Your task to perform on an android device: check android version Image 0: 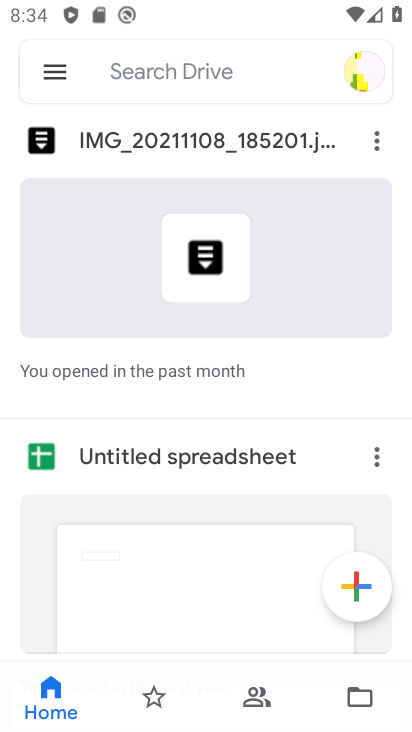
Step 0: press home button
Your task to perform on an android device: check android version Image 1: 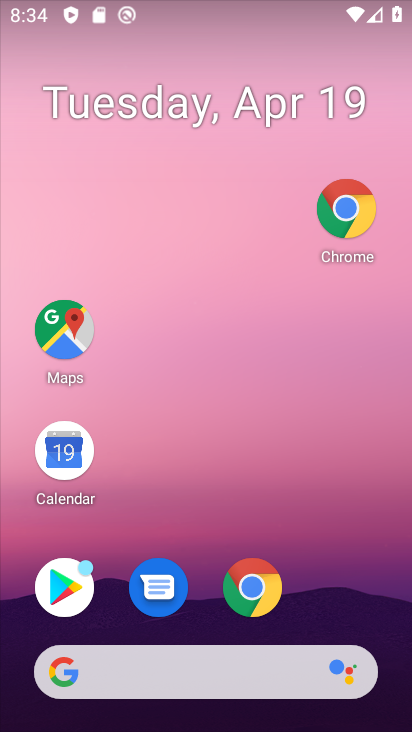
Step 1: drag from (297, 610) to (226, 121)
Your task to perform on an android device: check android version Image 2: 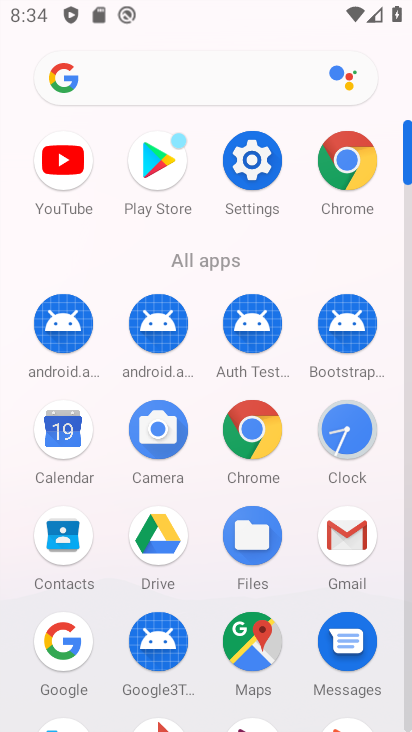
Step 2: click (144, 324)
Your task to perform on an android device: check android version Image 3: 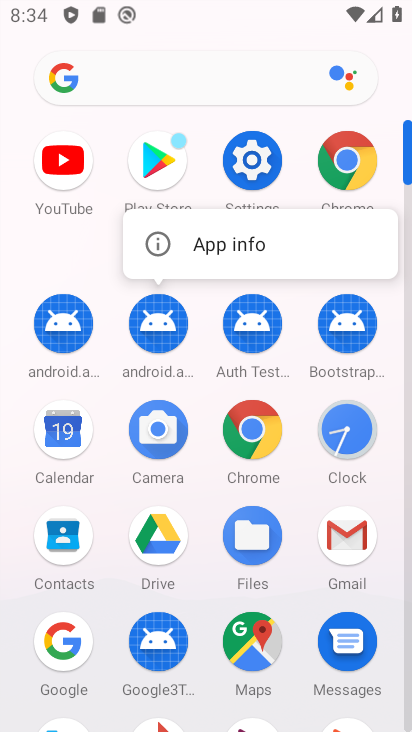
Step 3: click (152, 333)
Your task to perform on an android device: check android version Image 4: 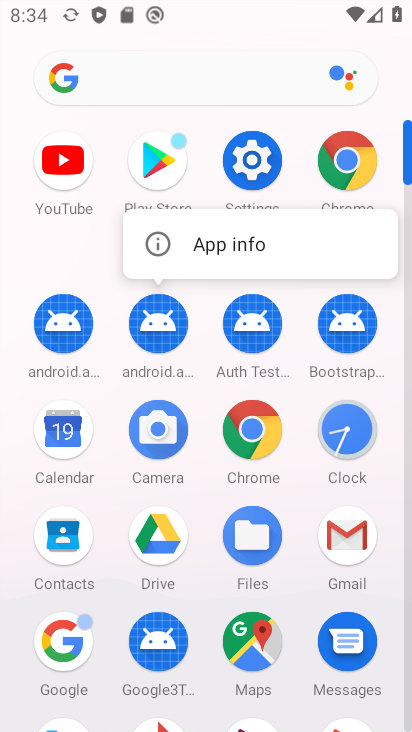
Step 4: click (143, 329)
Your task to perform on an android device: check android version Image 5: 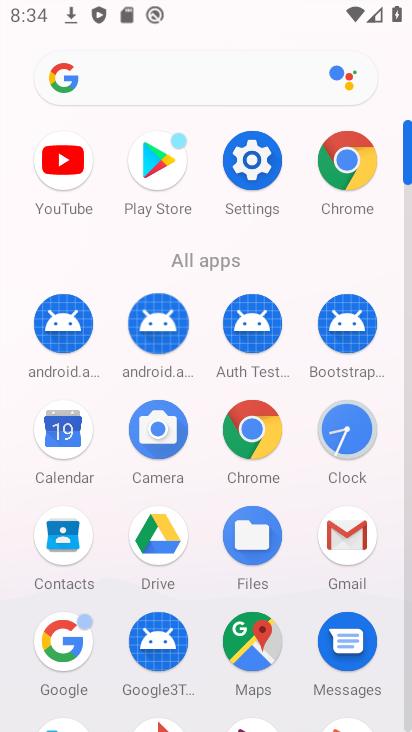
Step 5: click (143, 330)
Your task to perform on an android device: check android version Image 6: 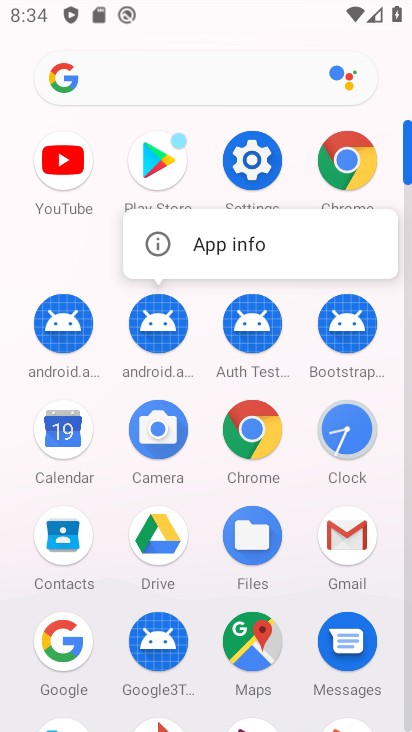
Step 6: click (143, 330)
Your task to perform on an android device: check android version Image 7: 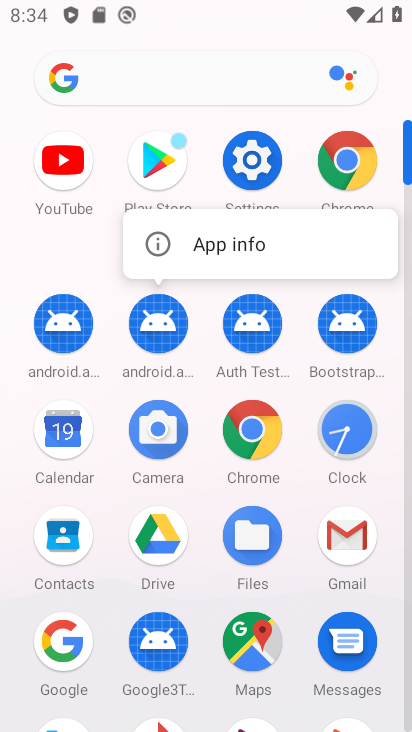
Step 7: click (145, 330)
Your task to perform on an android device: check android version Image 8: 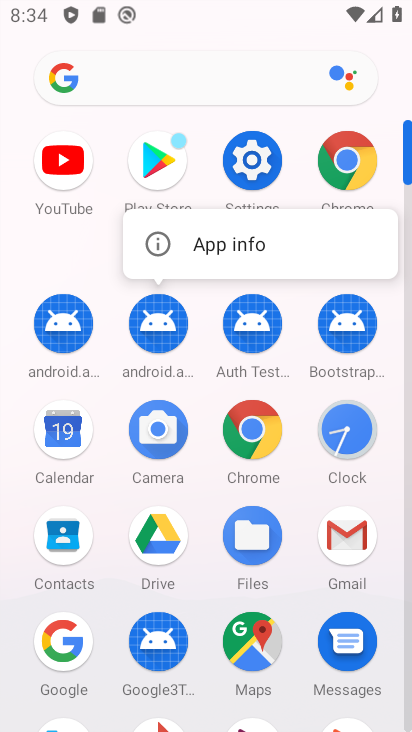
Step 8: click (145, 330)
Your task to perform on an android device: check android version Image 9: 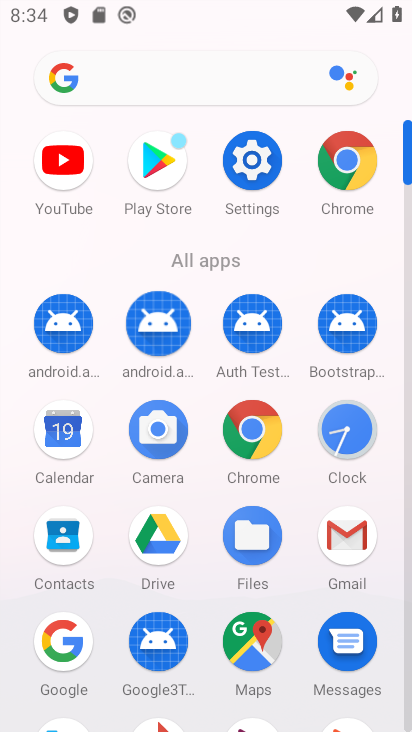
Step 9: click (77, 342)
Your task to perform on an android device: check android version Image 10: 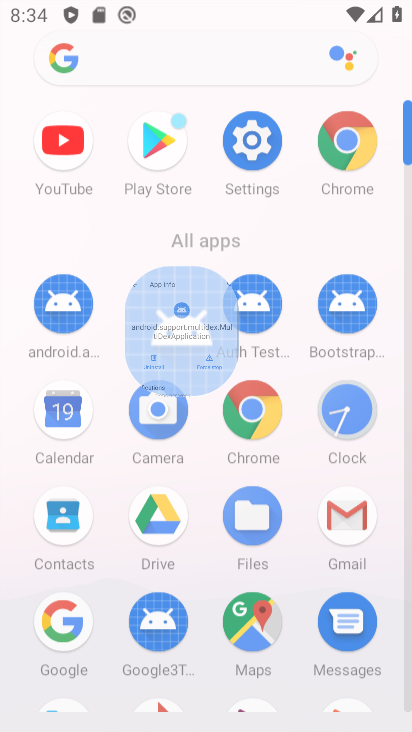
Step 10: click (156, 371)
Your task to perform on an android device: check android version Image 11: 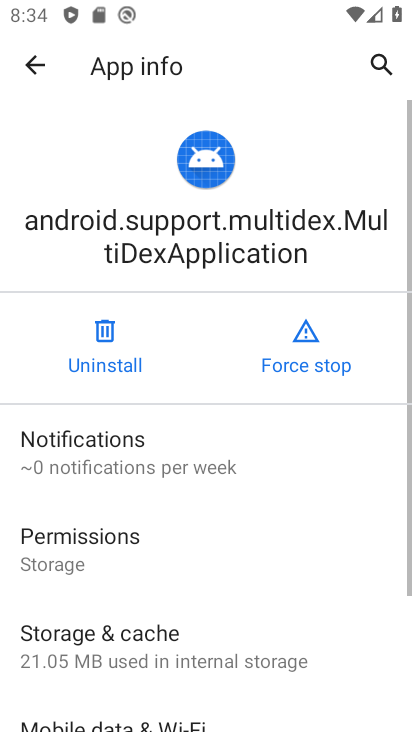
Step 11: click (154, 345)
Your task to perform on an android device: check android version Image 12: 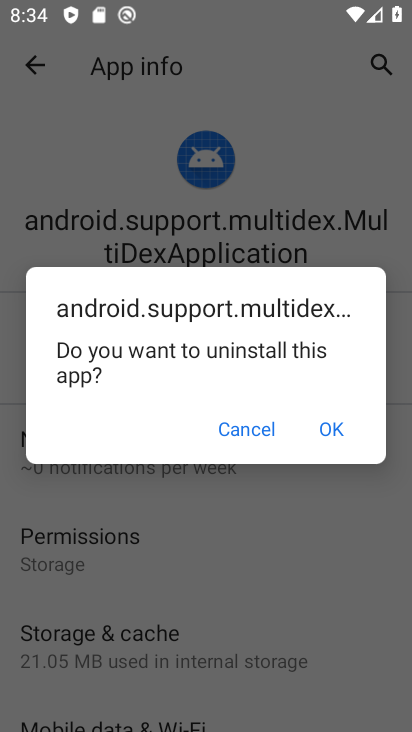
Step 12: drag from (197, 591) to (192, 254)
Your task to perform on an android device: check android version Image 13: 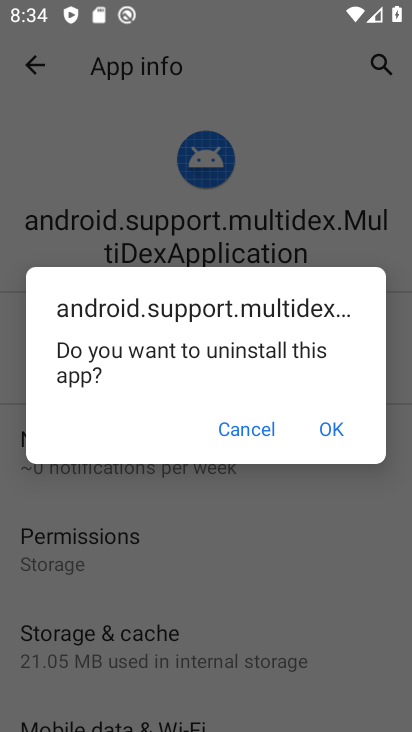
Step 13: click (336, 434)
Your task to perform on an android device: check android version Image 14: 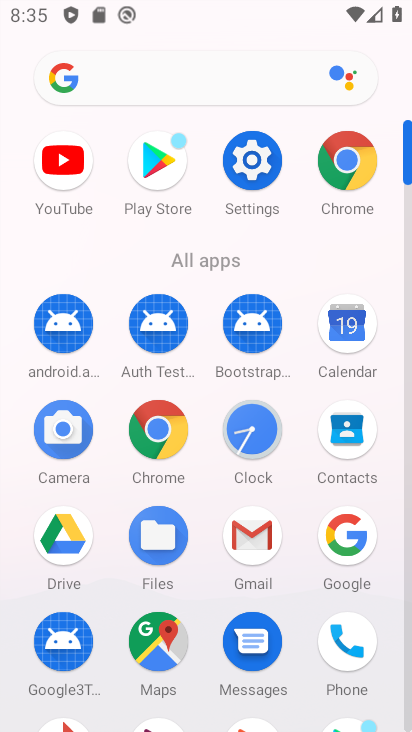
Step 14: drag from (277, 512) to (266, 399)
Your task to perform on an android device: check android version Image 15: 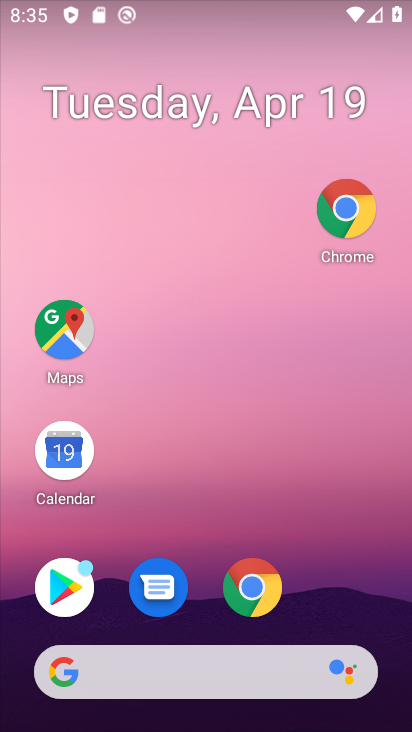
Step 15: click (159, 140)
Your task to perform on an android device: check android version Image 16: 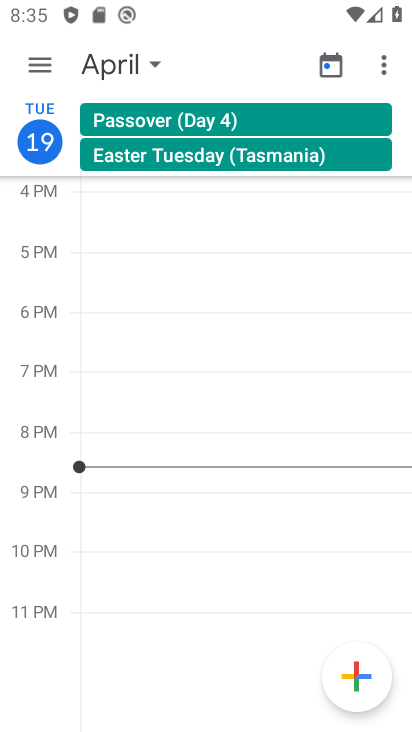
Step 16: press home button
Your task to perform on an android device: check android version Image 17: 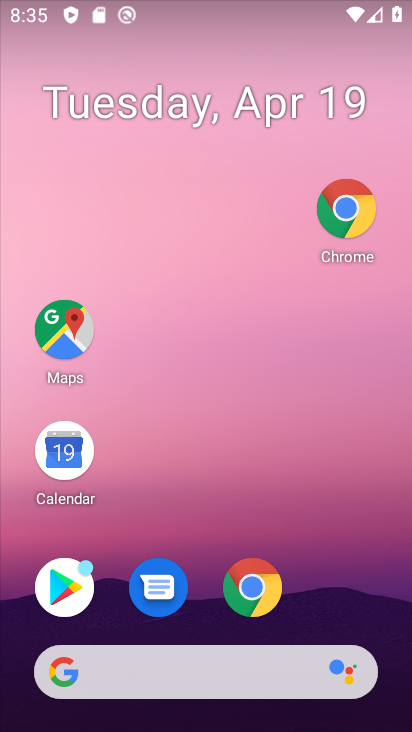
Step 17: click (188, 115)
Your task to perform on an android device: check android version Image 18: 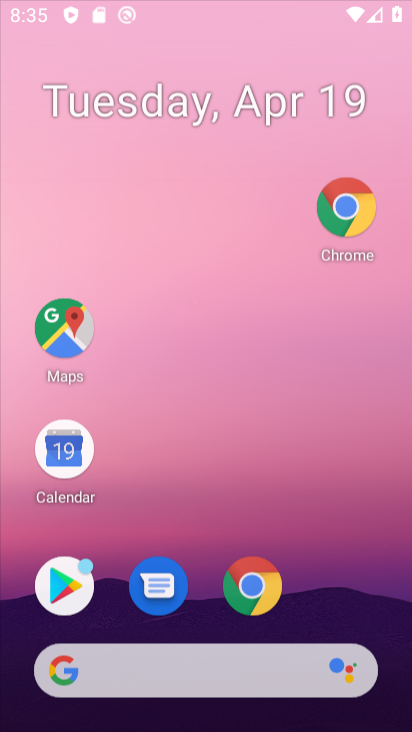
Step 18: drag from (305, 547) to (237, 173)
Your task to perform on an android device: check android version Image 19: 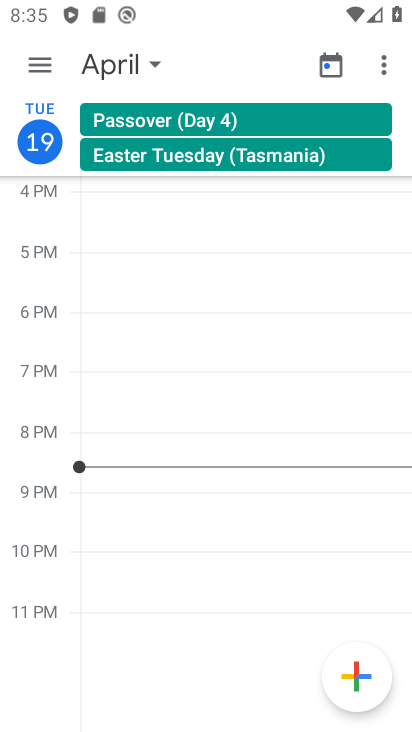
Step 19: click (250, 552)
Your task to perform on an android device: check android version Image 20: 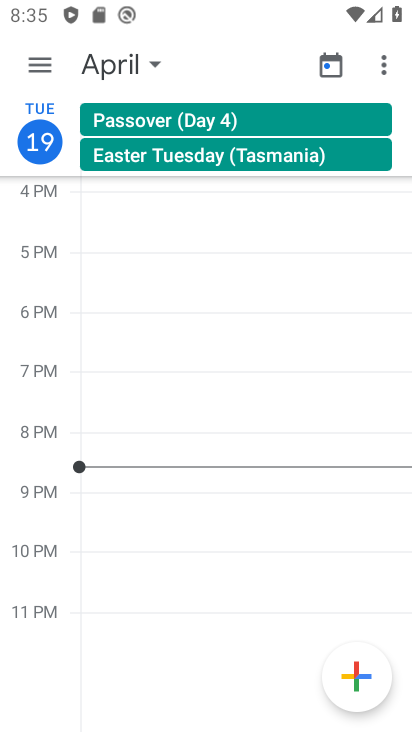
Step 20: press back button
Your task to perform on an android device: check android version Image 21: 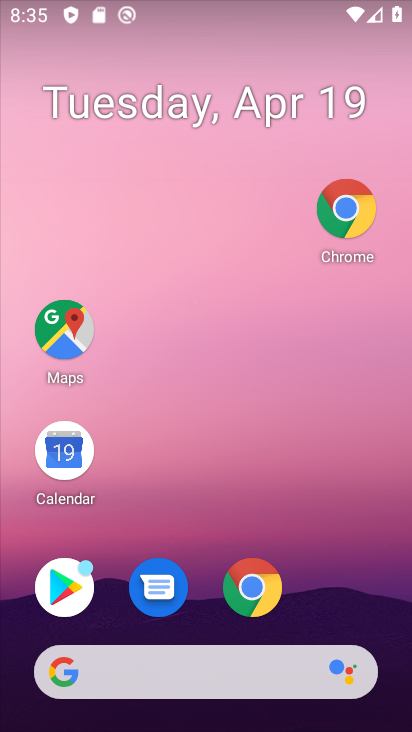
Step 21: drag from (299, 523) to (146, 166)
Your task to perform on an android device: check android version Image 22: 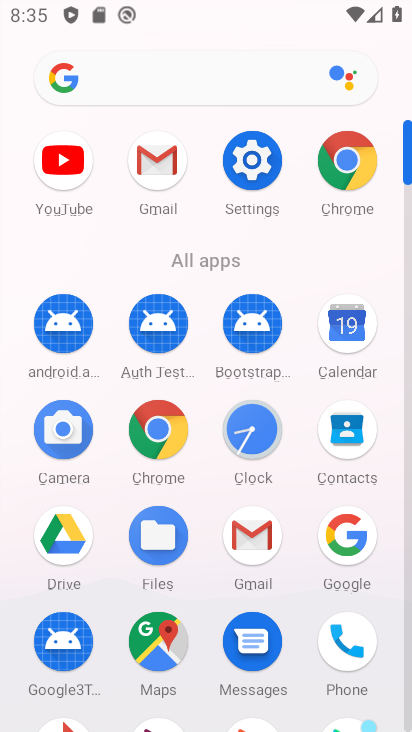
Step 22: click (52, 327)
Your task to perform on an android device: check android version Image 23: 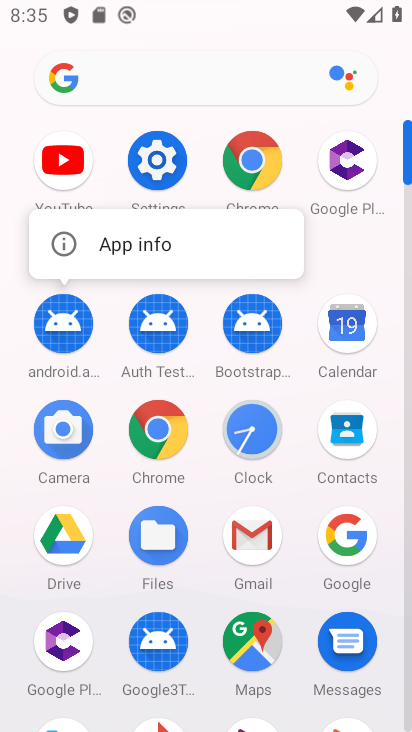
Step 23: click (52, 327)
Your task to perform on an android device: check android version Image 24: 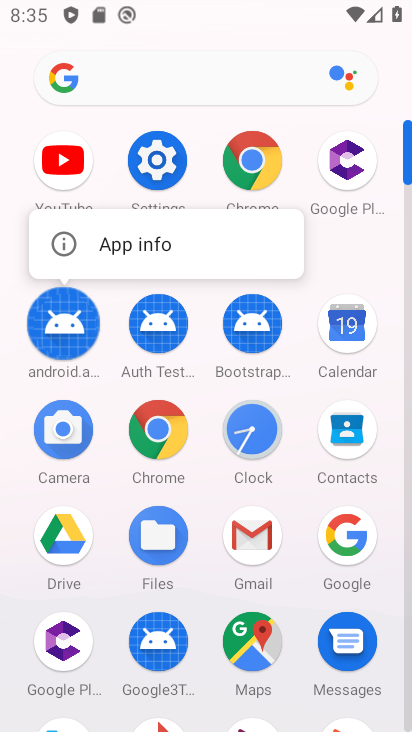
Step 24: click (52, 327)
Your task to perform on an android device: check android version Image 25: 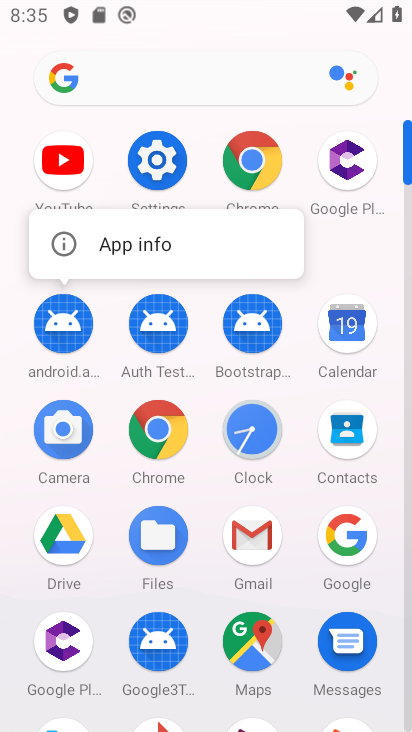
Step 25: click (52, 327)
Your task to perform on an android device: check android version Image 26: 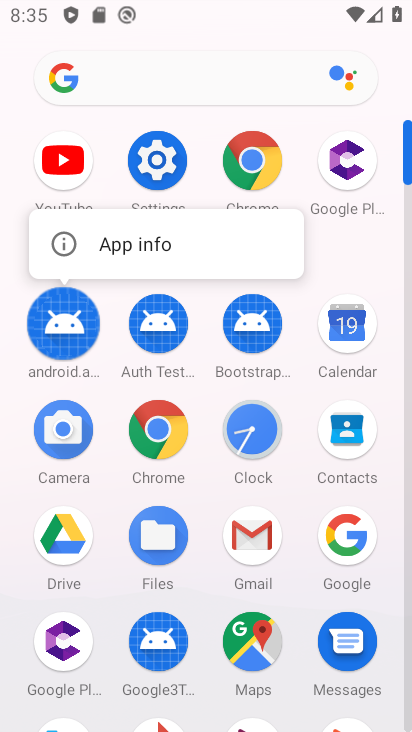
Step 26: click (52, 328)
Your task to perform on an android device: check android version Image 27: 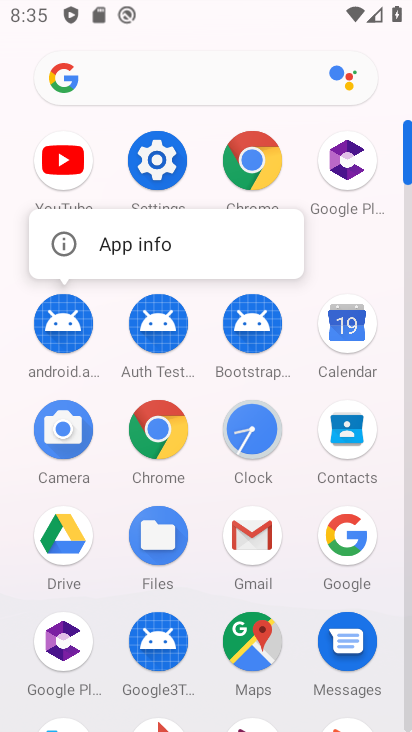
Step 27: click (70, 318)
Your task to perform on an android device: check android version Image 28: 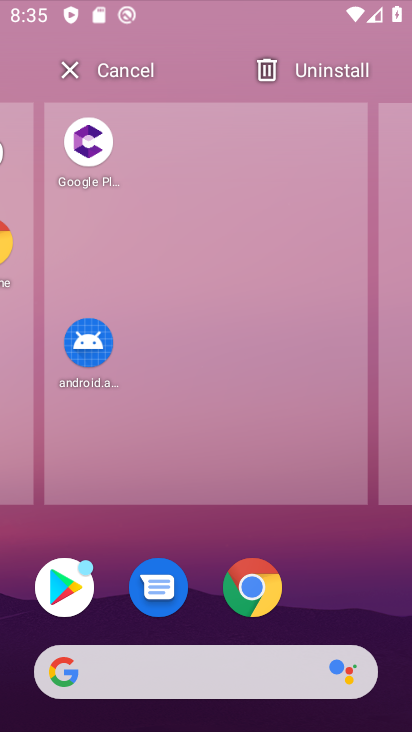
Step 28: click (90, 337)
Your task to perform on an android device: check android version Image 29: 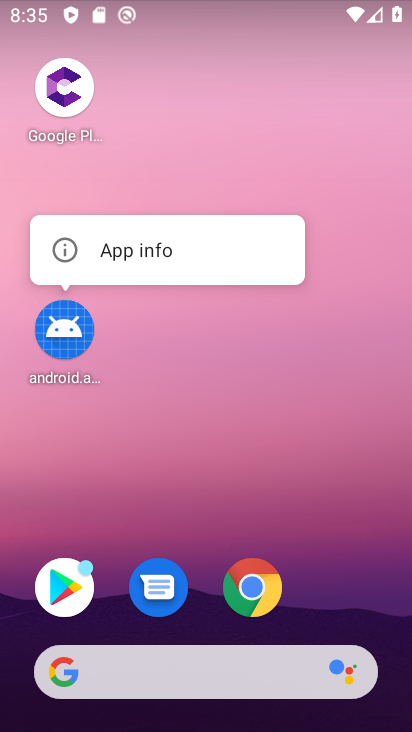
Step 29: click (90, 337)
Your task to perform on an android device: check android version Image 30: 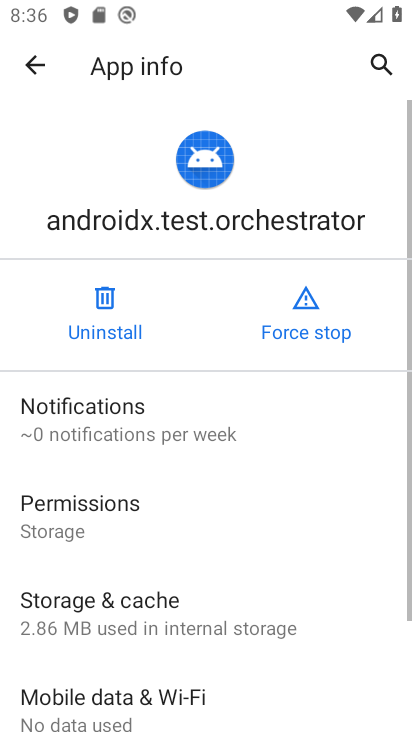
Step 30: drag from (98, 625) to (186, 231)
Your task to perform on an android device: check android version Image 31: 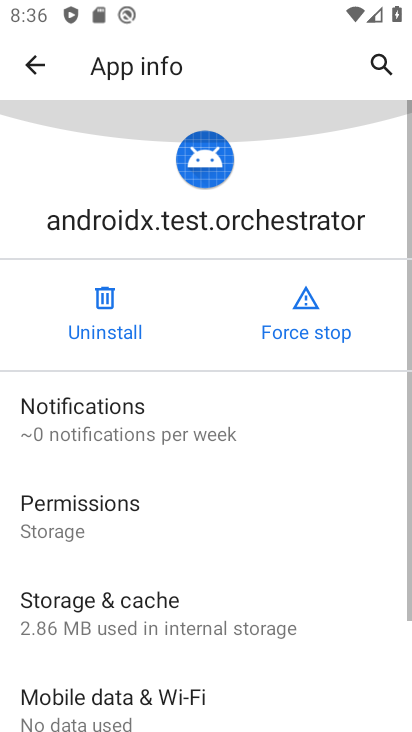
Step 31: drag from (159, 260) to (159, 203)
Your task to perform on an android device: check android version Image 32: 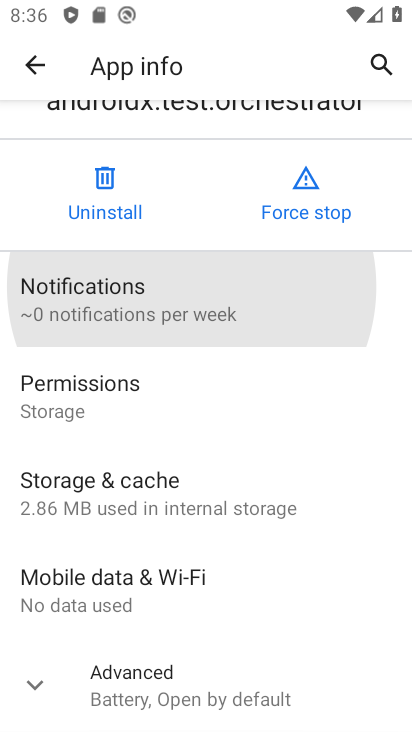
Step 32: drag from (181, 325) to (241, 224)
Your task to perform on an android device: check android version Image 33: 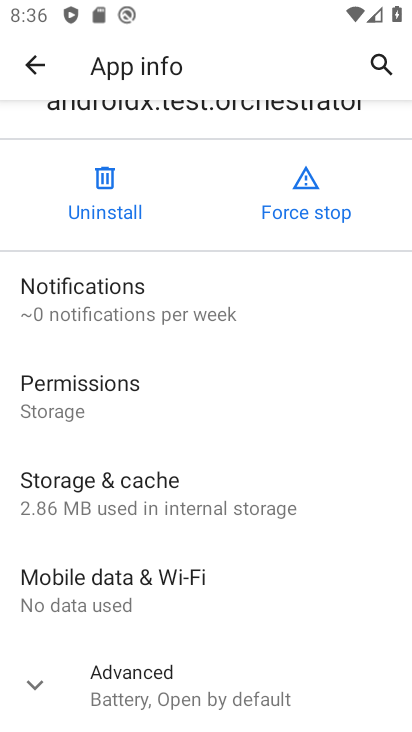
Step 33: click (132, 693)
Your task to perform on an android device: check android version Image 34: 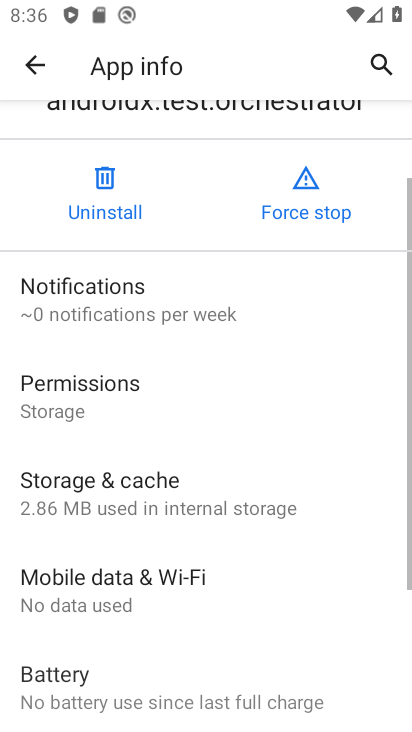
Step 34: click (132, 693)
Your task to perform on an android device: check android version Image 35: 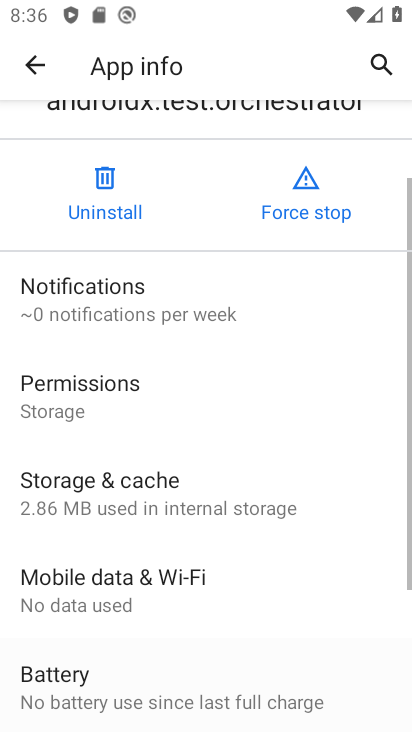
Step 35: drag from (144, 667) to (233, 179)
Your task to perform on an android device: check android version Image 36: 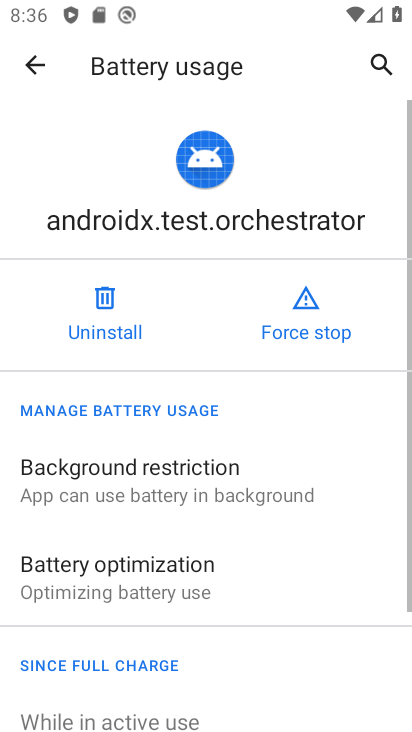
Step 36: drag from (229, 403) to (220, 253)
Your task to perform on an android device: check android version Image 37: 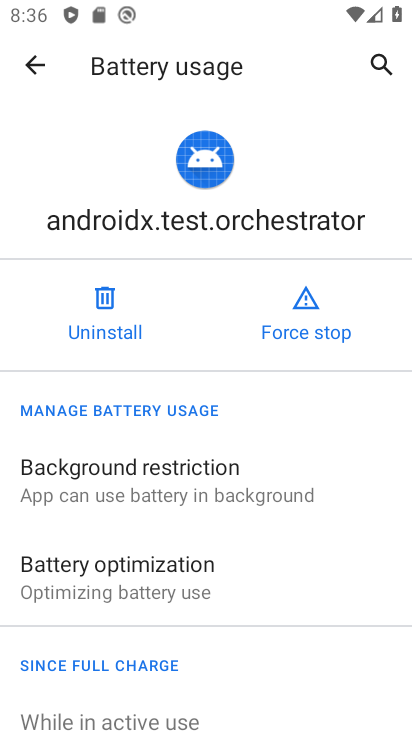
Step 37: drag from (247, 504) to (226, 120)
Your task to perform on an android device: check android version Image 38: 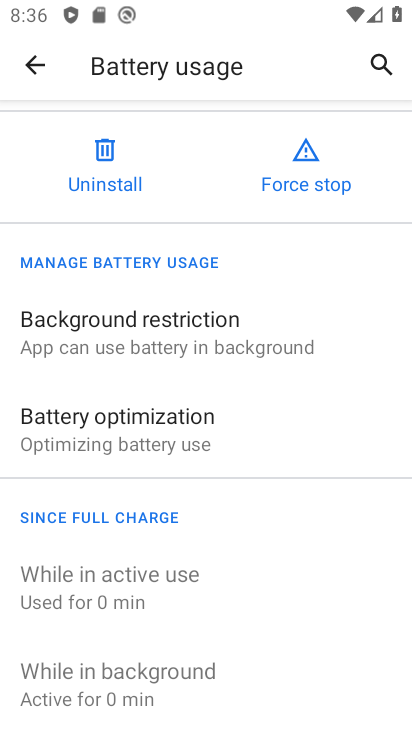
Step 38: press home button
Your task to perform on an android device: check android version Image 39: 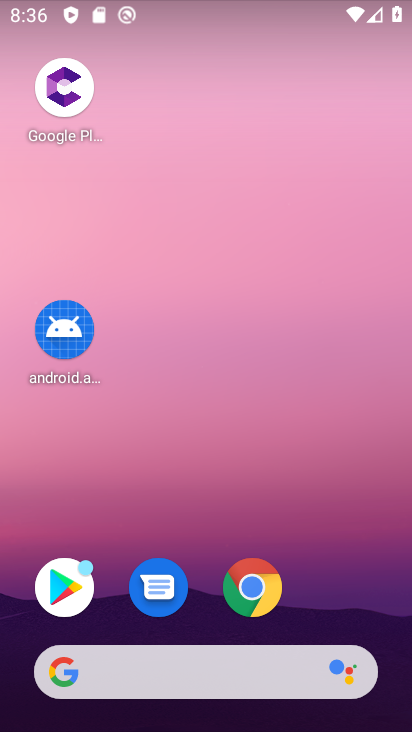
Step 39: drag from (320, 687) to (247, 48)
Your task to perform on an android device: check android version Image 40: 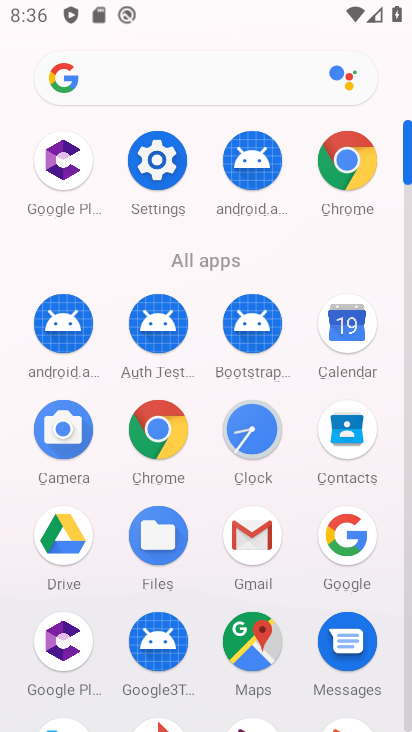
Step 40: click (64, 337)
Your task to perform on an android device: check android version Image 41: 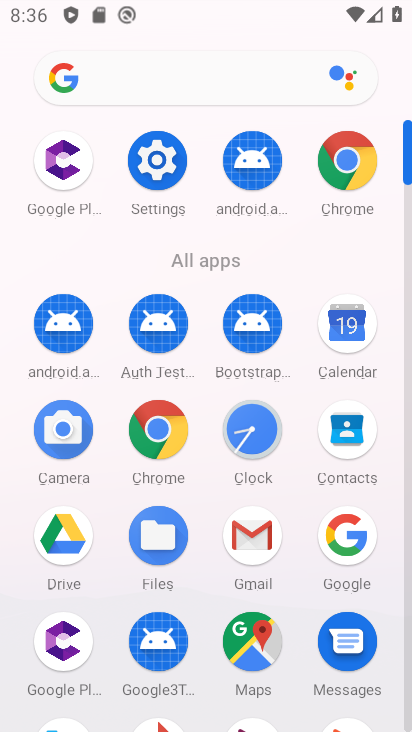
Step 41: click (64, 337)
Your task to perform on an android device: check android version Image 42: 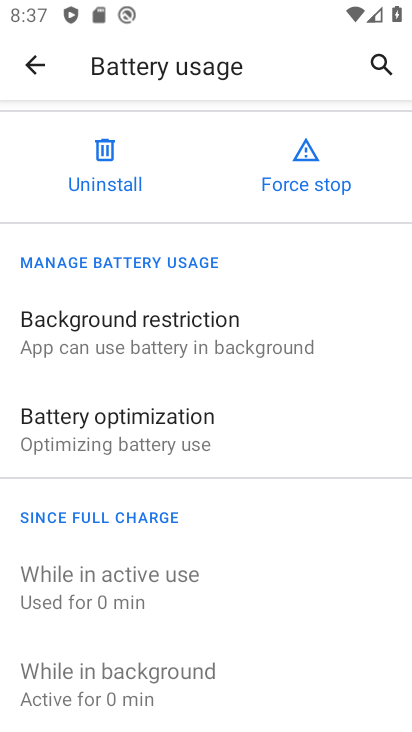
Step 42: drag from (153, 582) to (107, 325)
Your task to perform on an android device: check android version Image 43: 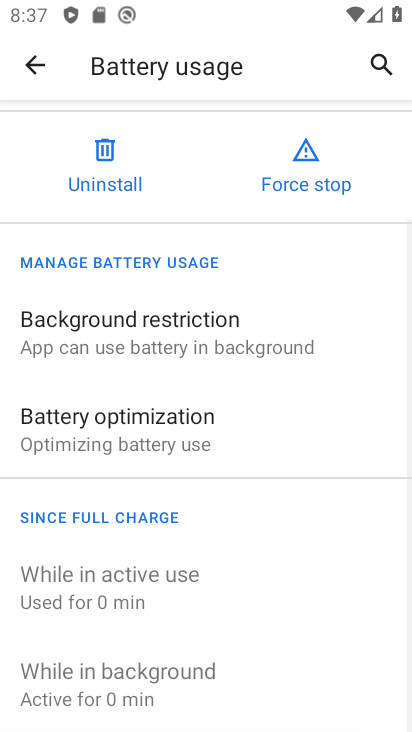
Step 43: drag from (148, 542) to (95, 245)
Your task to perform on an android device: check android version Image 44: 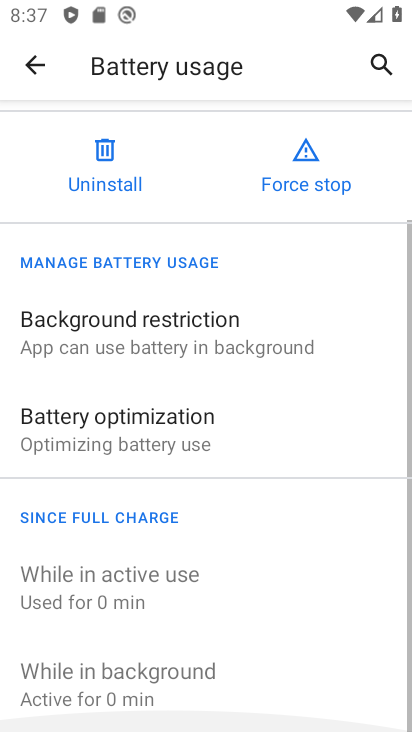
Step 44: drag from (185, 455) to (156, 163)
Your task to perform on an android device: check android version Image 45: 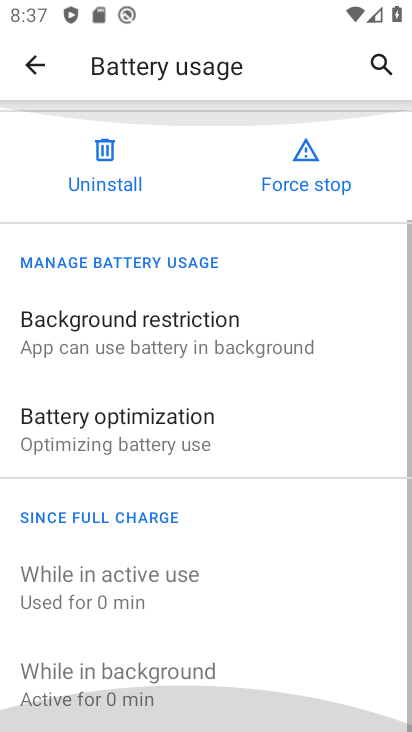
Step 45: drag from (187, 444) to (243, 238)
Your task to perform on an android device: check android version Image 46: 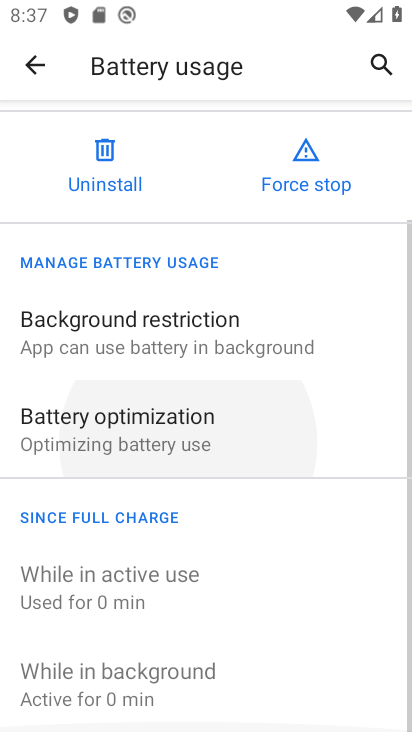
Step 46: drag from (174, 548) to (221, 265)
Your task to perform on an android device: check android version Image 47: 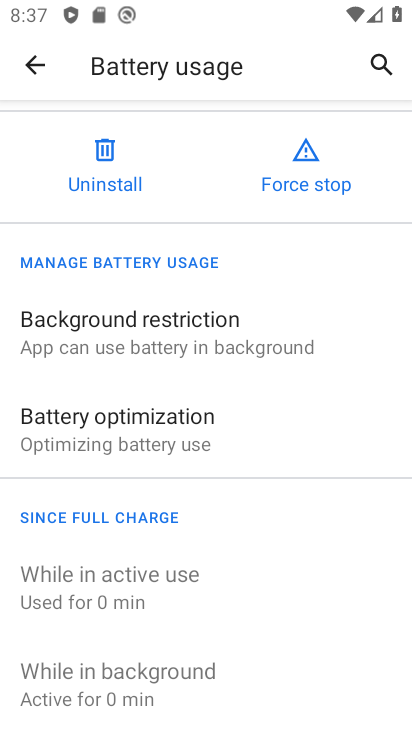
Step 47: drag from (156, 550) to (156, 238)
Your task to perform on an android device: check android version Image 48: 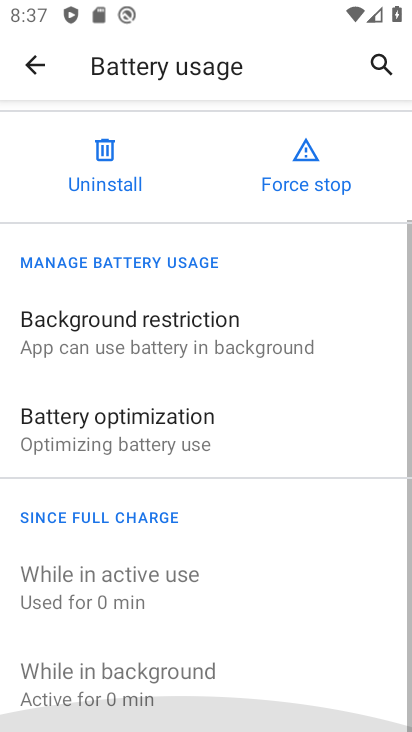
Step 48: drag from (195, 616) to (196, 228)
Your task to perform on an android device: check android version Image 49: 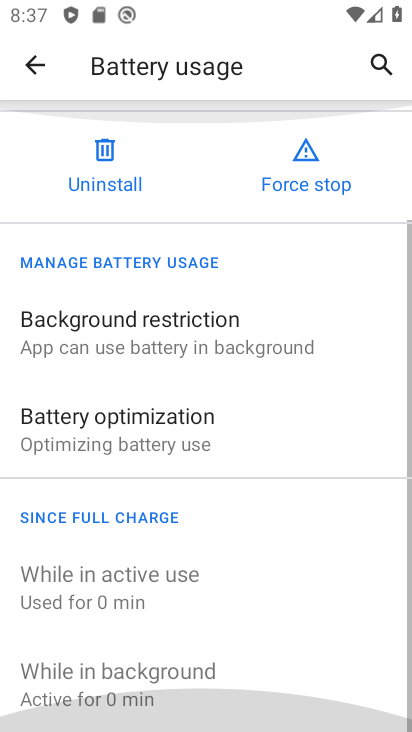
Step 49: drag from (159, 361) to (159, 204)
Your task to perform on an android device: check android version Image 50: 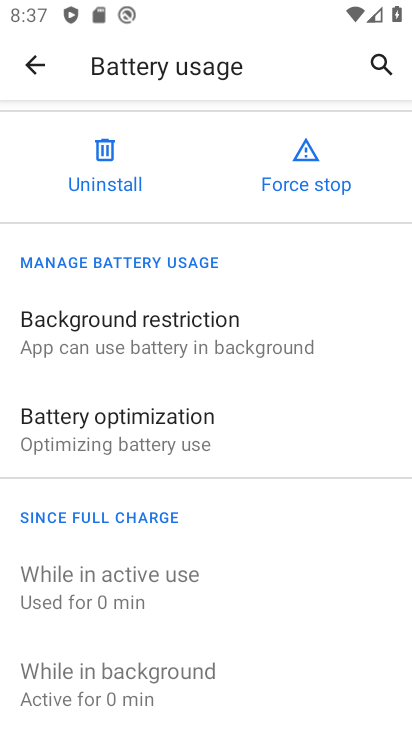
Step 50: click (203, 584)
Your task to perform on an android device: check android version Image 51: 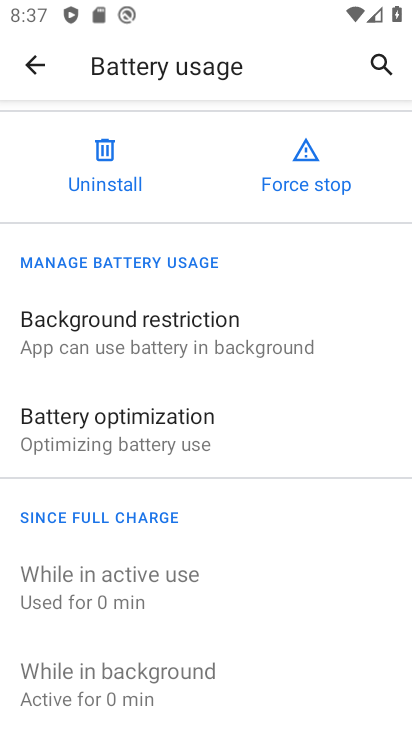
Step 51: drag from (215, 537) to (215, 578)
Your task to perform on an android device: check android version Image 52: 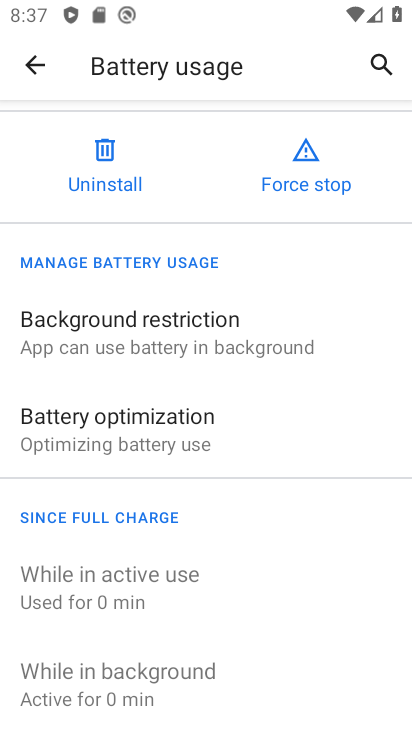
Step 52: drag from (186, 326) to (207, 622)
Your task to perform on an android device: check android version Image 53: 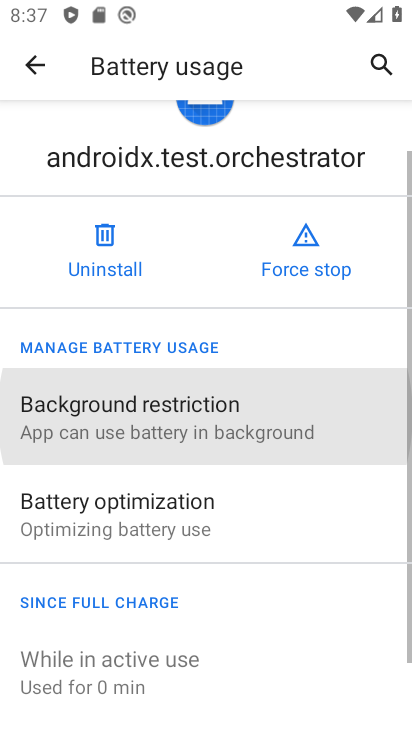
Step 53: drag from (189, 328) to (239, 656)
Your task to perform on an android device: check android version Image 54: 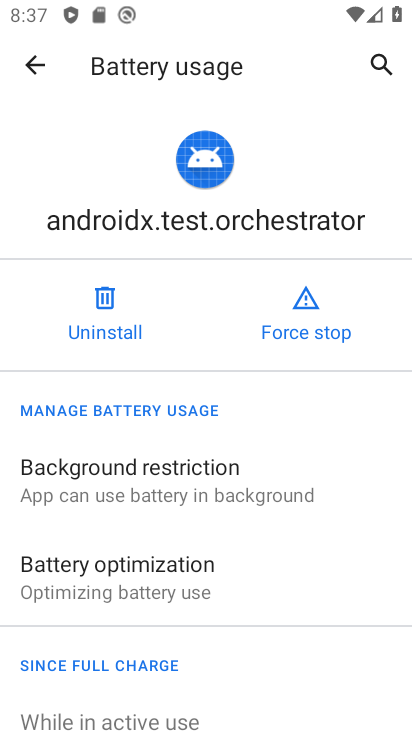
Step 54: drag from (172, 433) to (182, 296)
Your task to perform on an android device: check android version Image 55: 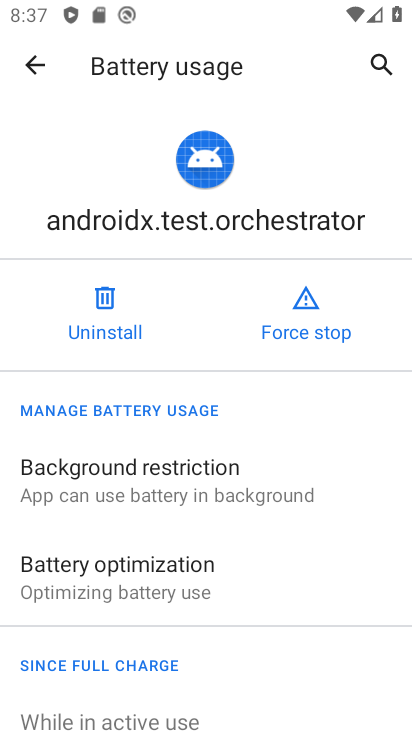
Step 55: drag from (181, 527) to (181, 232)
Your task to perform on an android device: check android version Image 56: 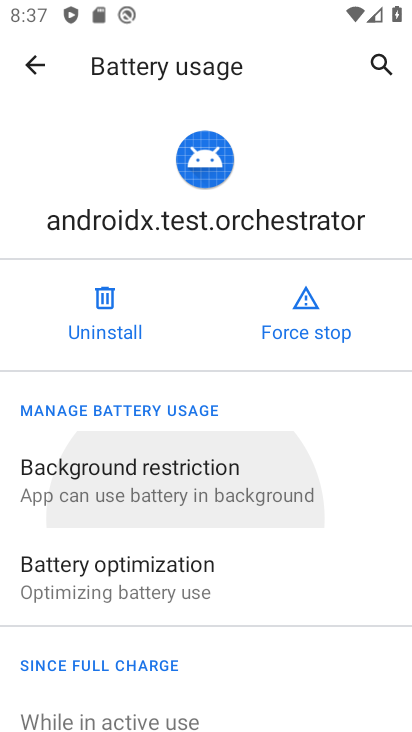
Step 56: drag from (167, 494) to (133, 239)
Your task to perform on an android device: check android version Image 57: 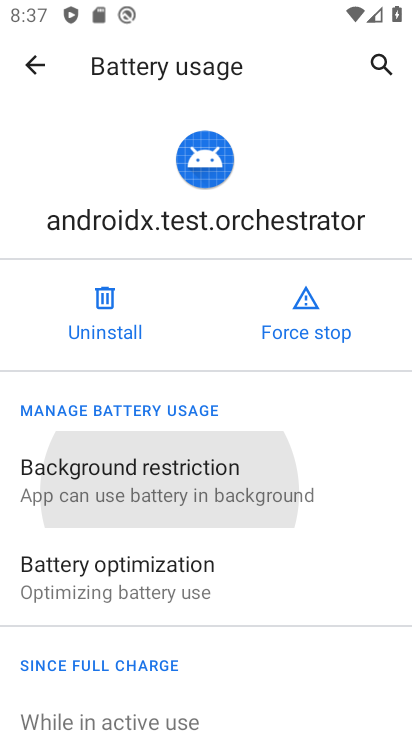
Step 57: drag from (159, 547) to (195, 247)
Your task to perform on an android device: check android version Image 58: 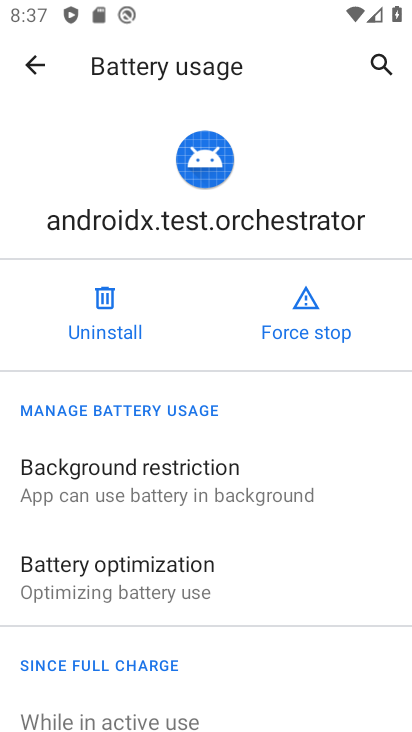
Step 58: drag from (260, 606) to (291, 275)
Your task to perform on an android device: check android version Image 59: 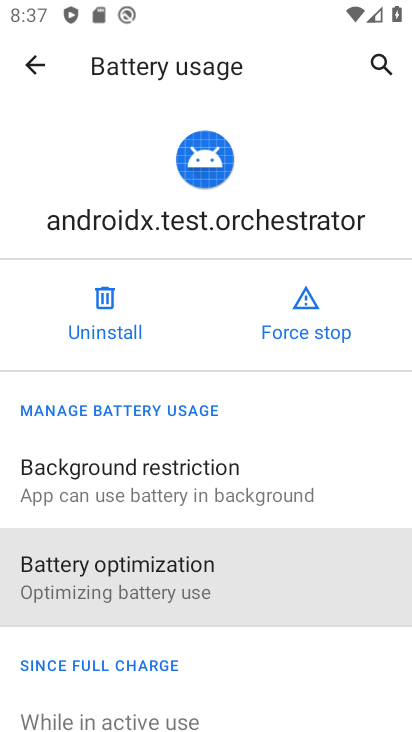
Step 59: drag from (226, 376) to (264, 222)
Your task to perform on an android device: check android version Image 60: 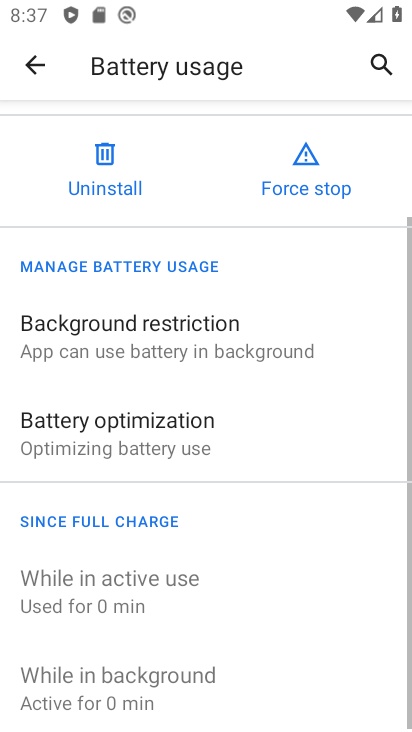
Step 60: click (194, 260)
Your task to perform on an android device: check android version Image 61: 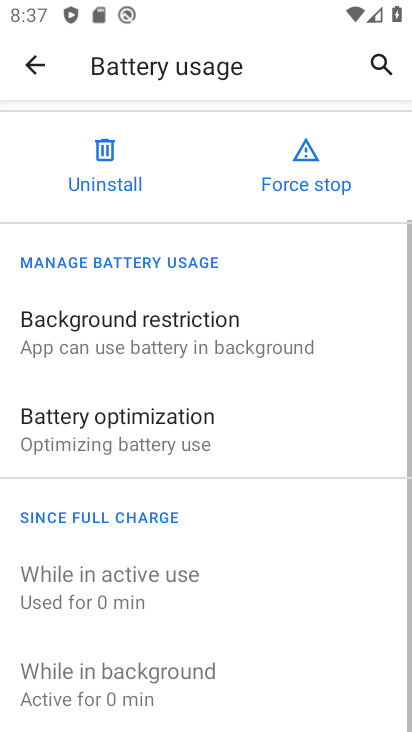
Step 61: drag from (304, 384) to (361, 245)
Your task to perform on an android device: check android version Image 62: 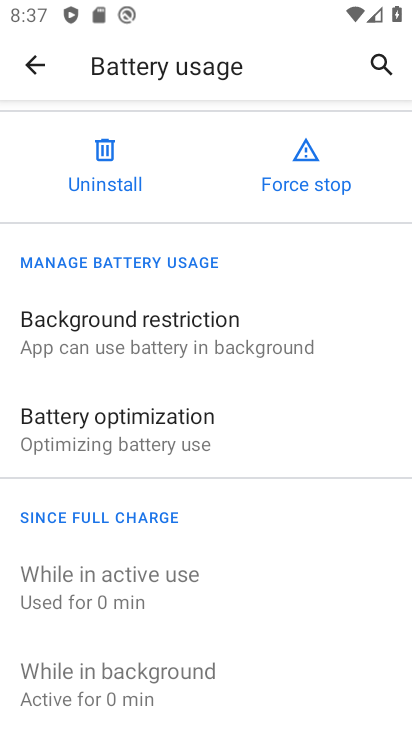
Step 62: drag from (287, 591) to (345, 346)
Your task to perform on an android device: check android version Image 63: 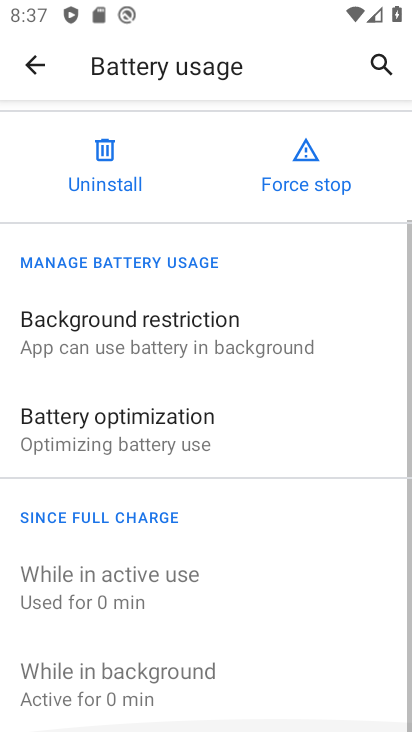
Step 63: drag from (298, 329) to (310, 247)
Your task to perform on an android device: check android version Image 64: 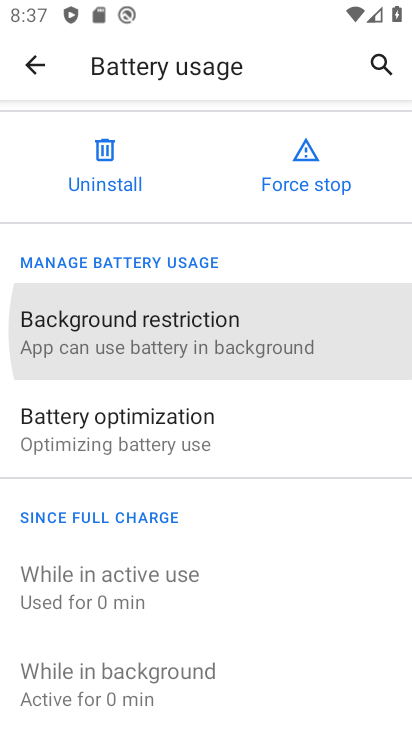
Step 64: drag from (199, 590) to (292, 187)
Your task to perform on an android device: check android version Image 65: 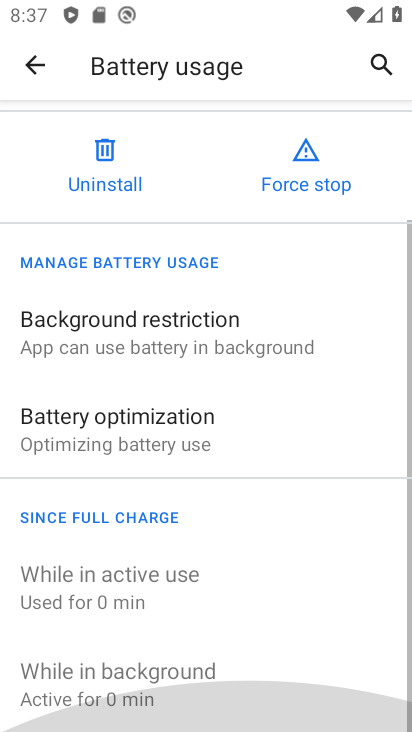
Step 65: drag from (222, 364) to (255, 210)
Your task to perform on an android device: check android version Image 66: 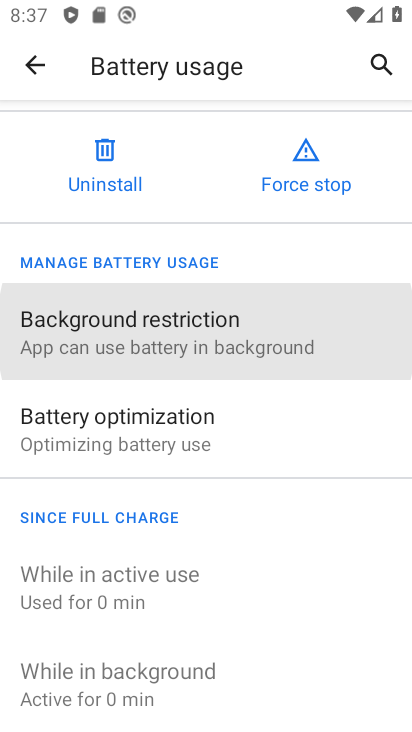
Step 66: drag from (268, 400) to (282, 294)
Your task to perform on an android device: check android version Image 67: 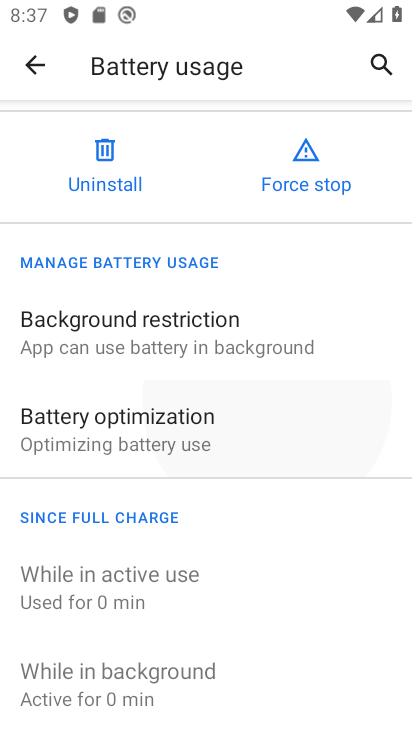
Step 67: drag from (226, 633) to (222, 172)
Your task to perform on an android device: check android version Image 68: 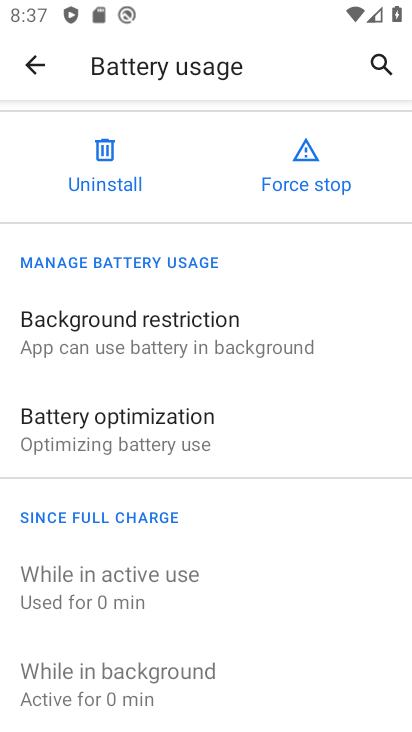
Step 68: drag from (201, 588) to (262, 209)
Your task to perform on an android device: check android version Image 69: 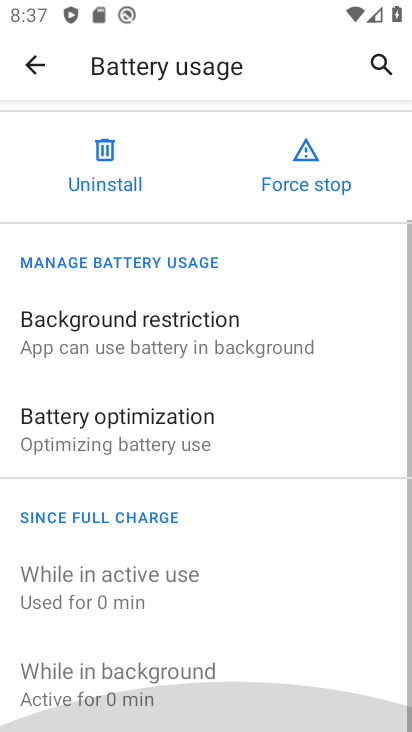
Step 69: click (386, 436)
Your task to perform on an android device: check android version Image 70: 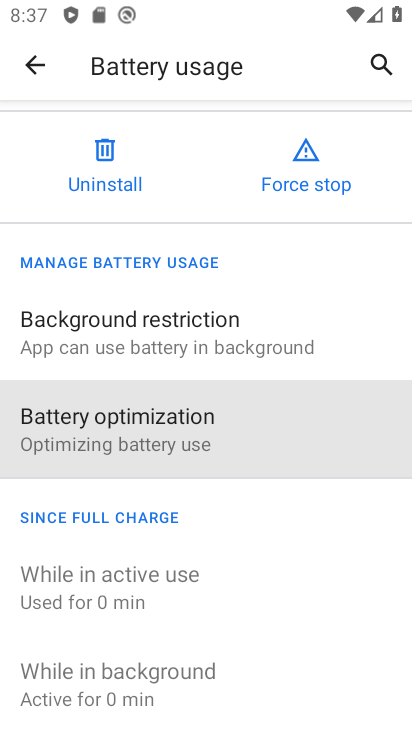
Step 70: task complete